Your task to perform on an android device: Go to Yahoo.com Image 0: 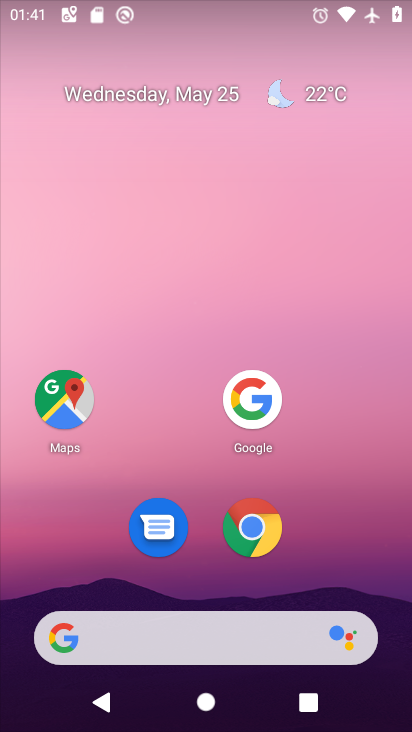
Step 0: press home button
Your task to perform on an android device: Go to Yahoo.com Image 1: 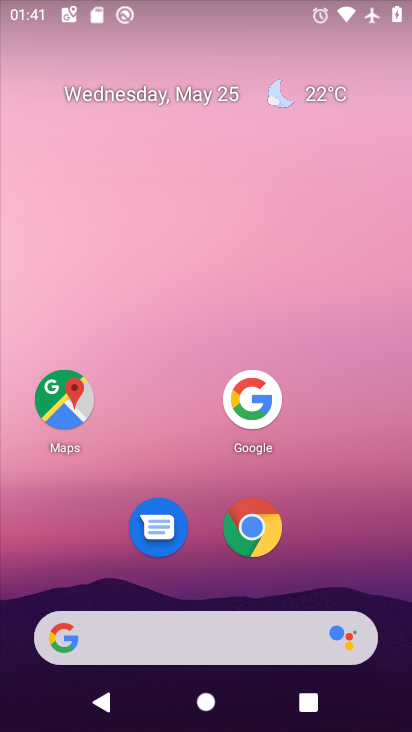
Step 1: click (252, 540)
Your task to perform on an android device: Go to Yahoo.com Image 2: 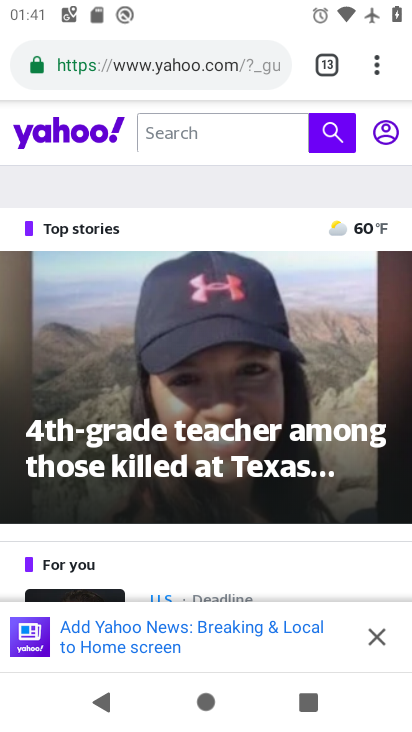
Step 2: task complete